Your task to perform on an android device: Turn on the flashlight Image 0: 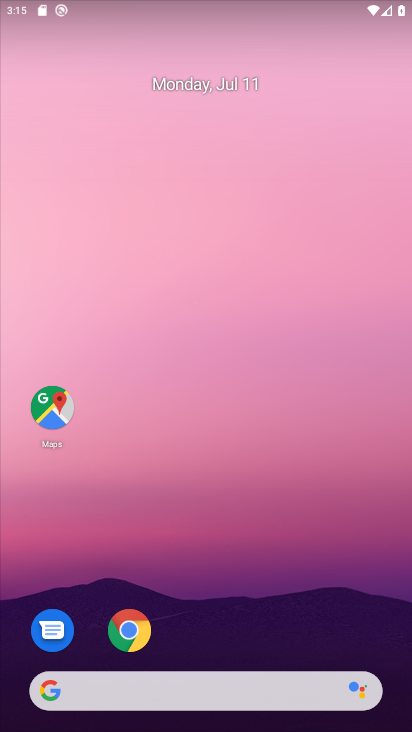
Step 0: drag from (298, 596) to (199, 192)
Your task to perform on an android device: Turn on the flashlight Image 1: 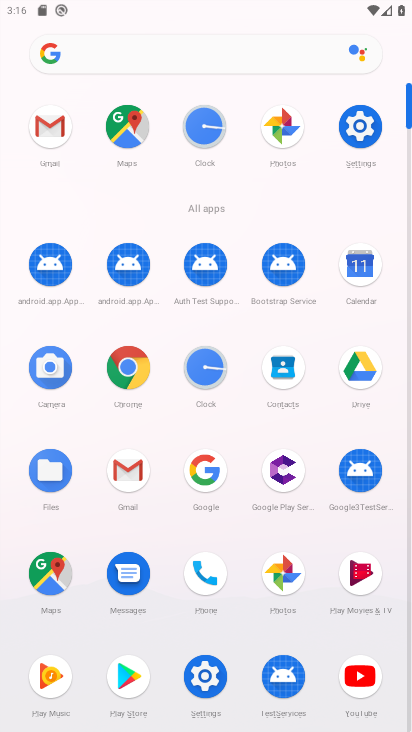
Step 1: click (364, 149)
Your task to perform on an android device: Turn on the flashlight Image 2: 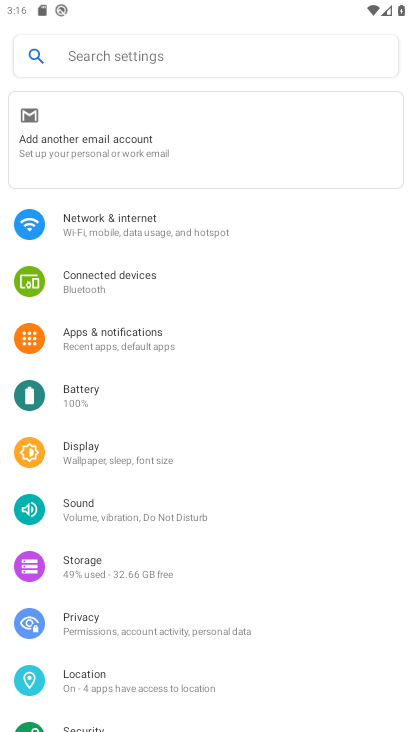
Step 2: click (318, 443)
Your task to perform on an android device: Turn on the flashlight Image 3: 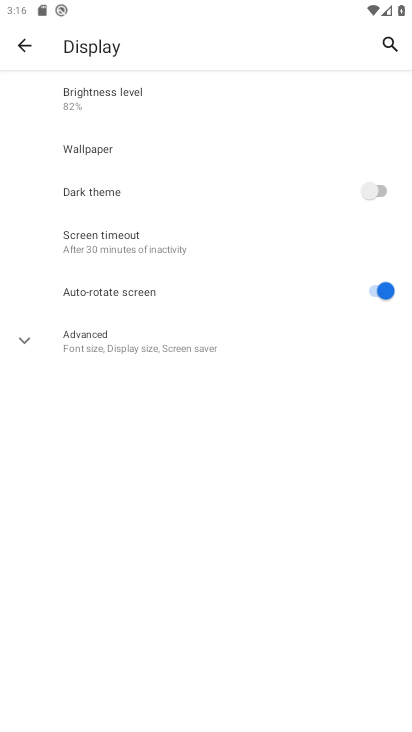
Step 3: task complete